Your task to perform on an android device: see creations saved in the google photos Image 0: 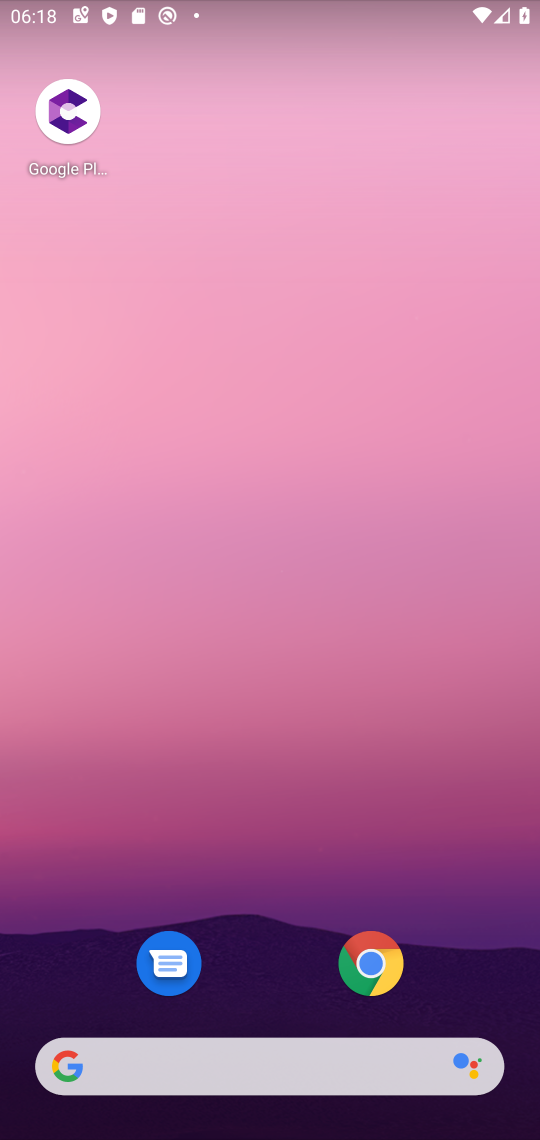
Step 0: click (539, 726)
Your task to perform on an android device: see creations saved in the google photos Image 1: 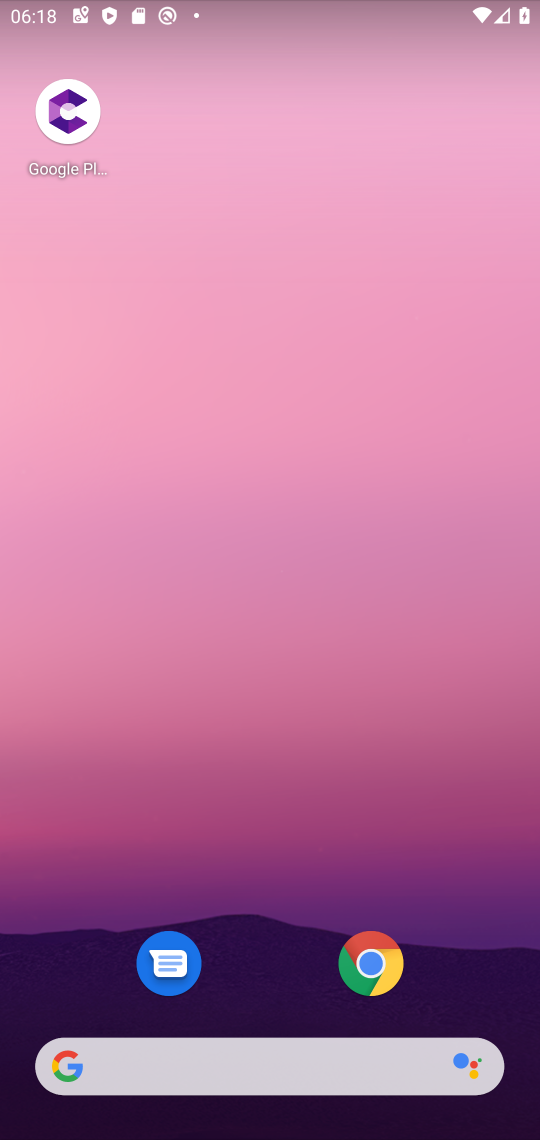
Step 1: drag from (283, 848) to (300, 28)
Your task to perform on an android device: see creations saved in the google photos Image 2: 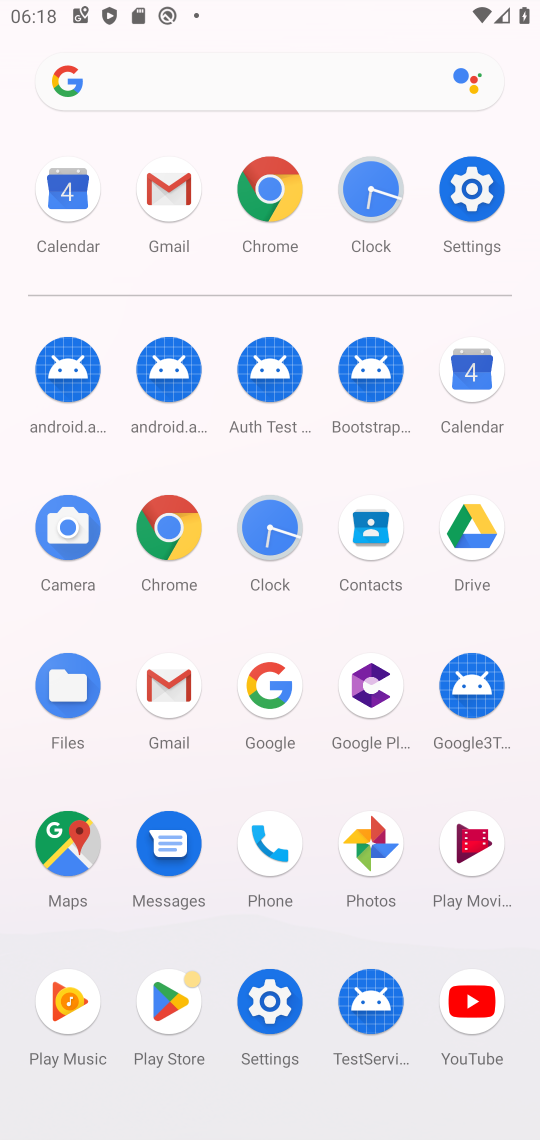
Step 2: click (378, 843)
Your task to perform on an android device: see creations saved in the google photos Image 3: 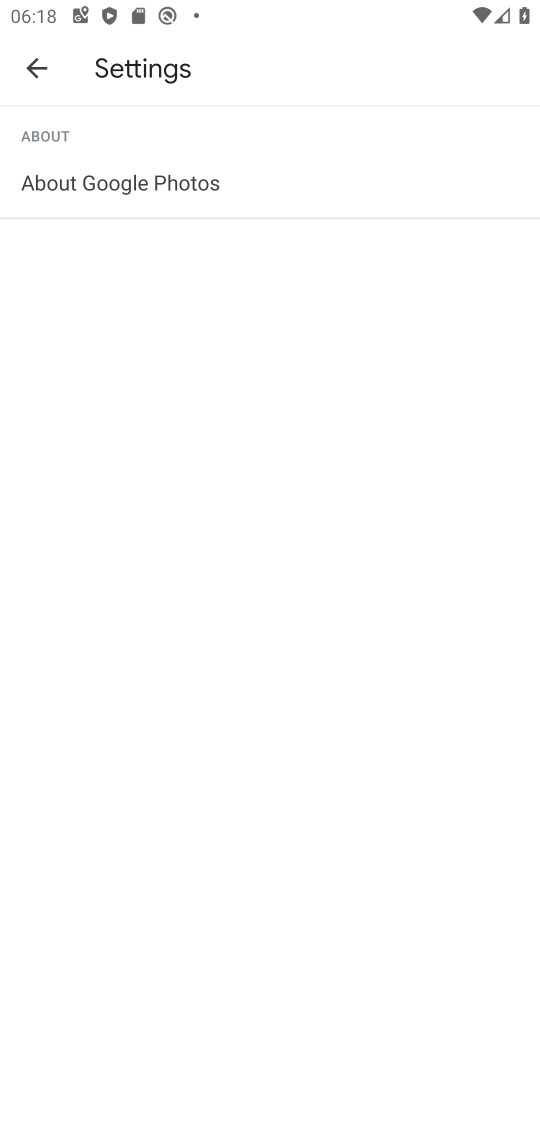
Step 3: click (31, 58)
Your task to perform on an android device: see creations saved in the google photos Image 4: 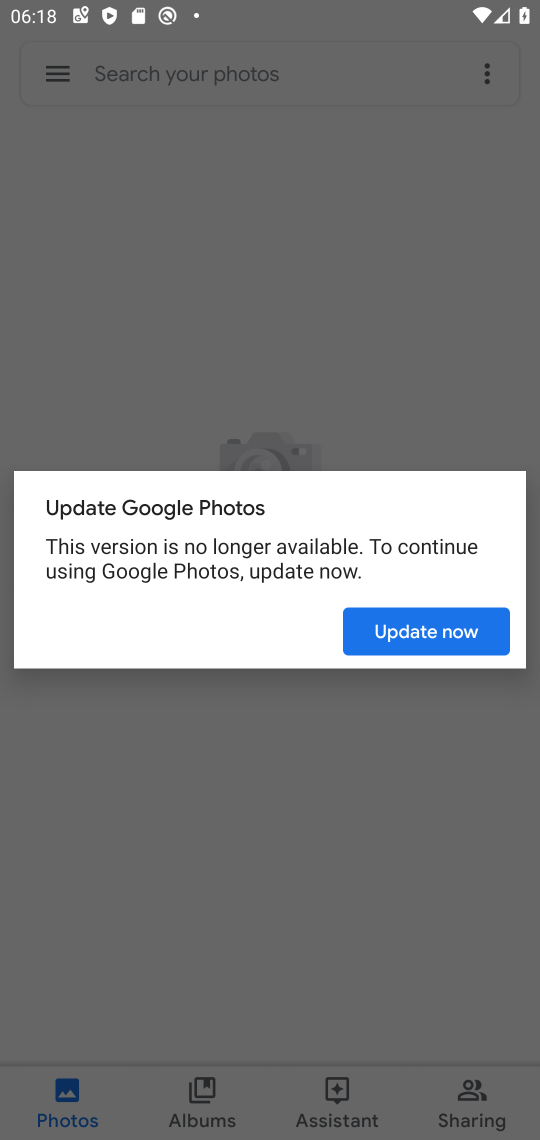
Step 4: click (31, 58)
Your task to perform on an android device: see creations saved in the google photos Image 5: 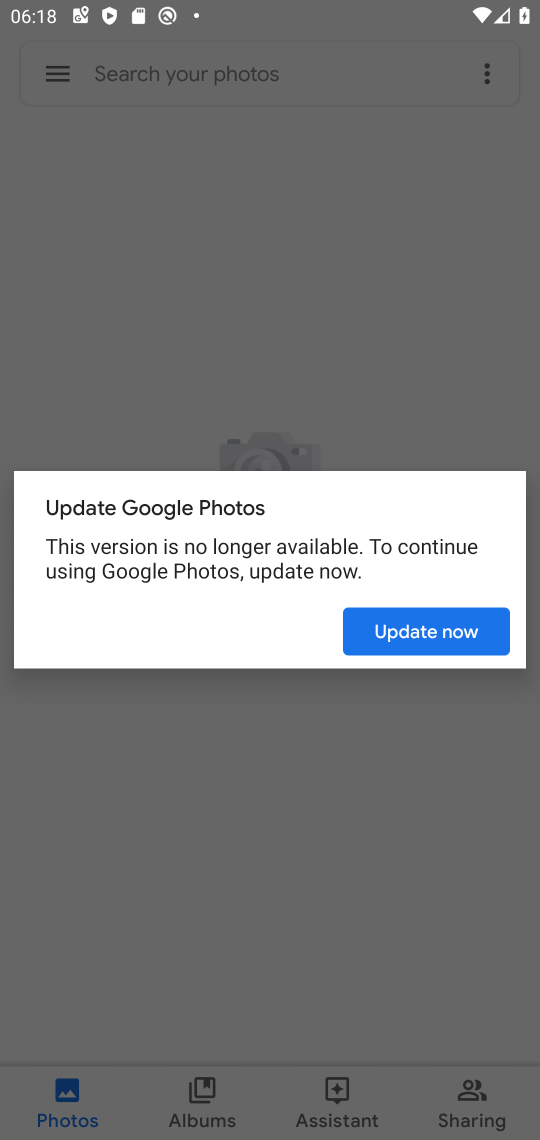
Step 5: click (397, 632)
Your task to perform on an android device: see creations saved in the google photos Image 6: 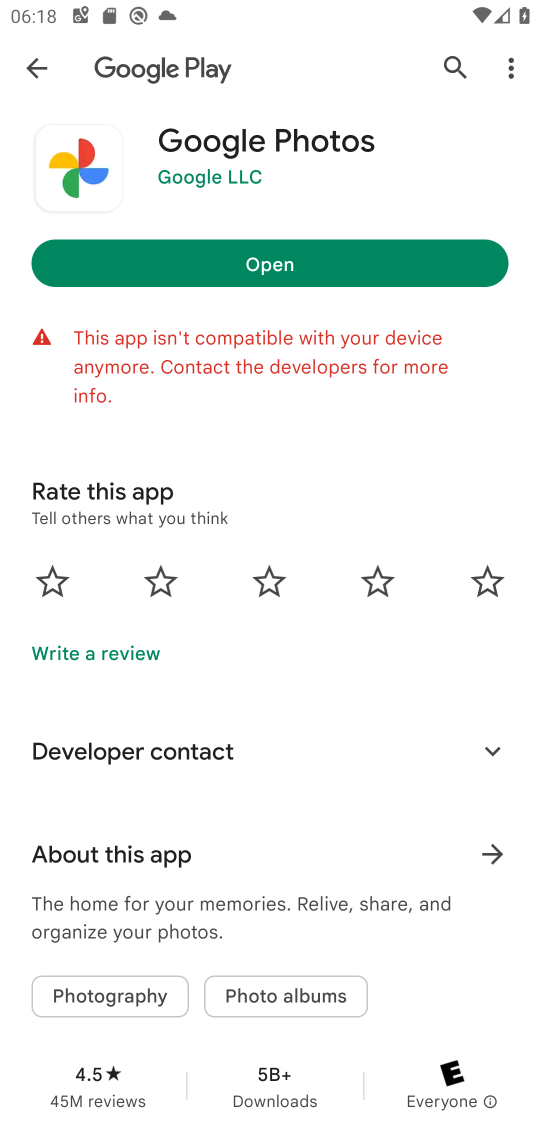
Step 6: click (230, 252)
Your task to perform on an android device: see creations saved in the google photos Image 7: 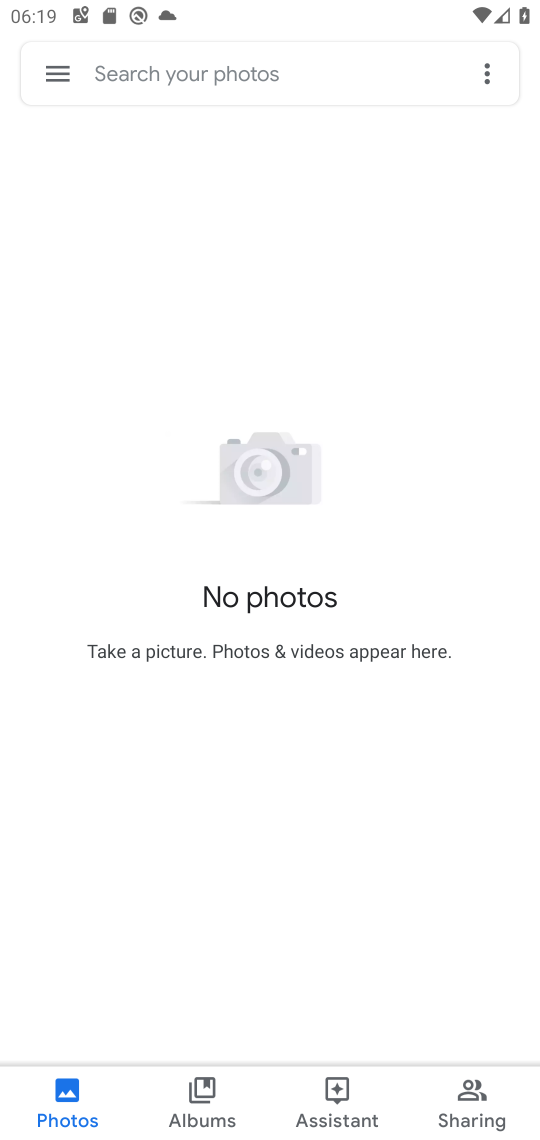
Step 7: click (175, 68)
Your task to perform on an android device: see creations saved in the google photos Image 8: 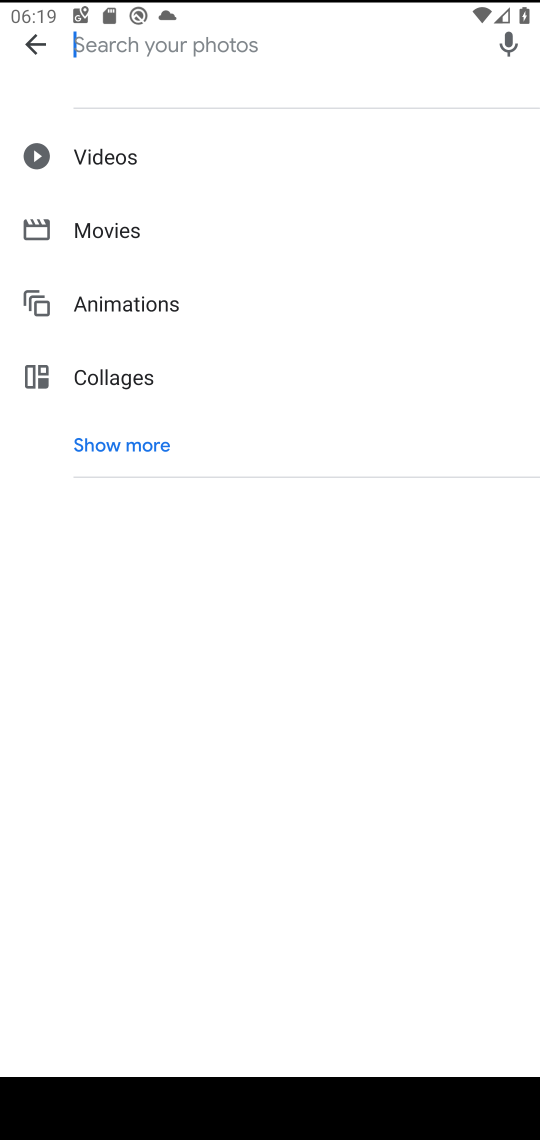
Step 8: click (122, 436)
Your task to perform on an android device: see creations saved in the google photos Image 9: 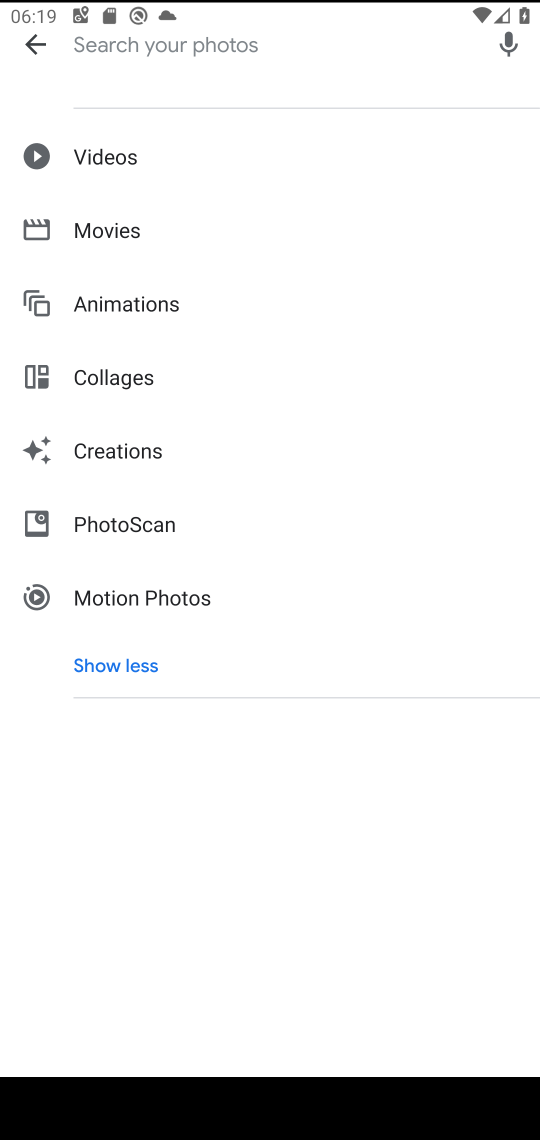
Step 9: click (117, 448)
Your task to perform on an android device: see creations saved in the google photos Image 10: 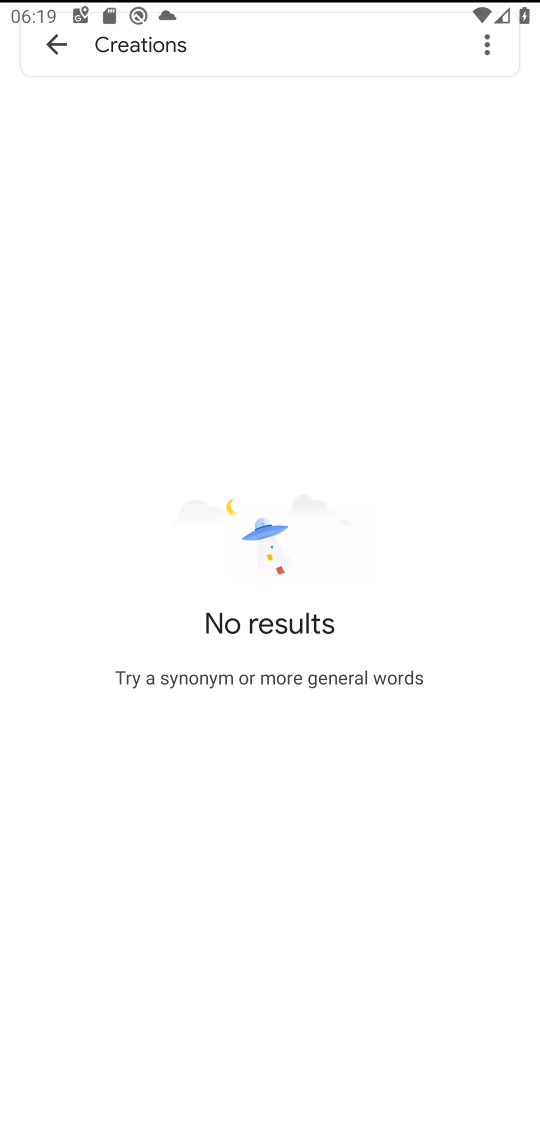
Step 10: task complete